Your task to perform on an android device: Open privacy settings Image 0: 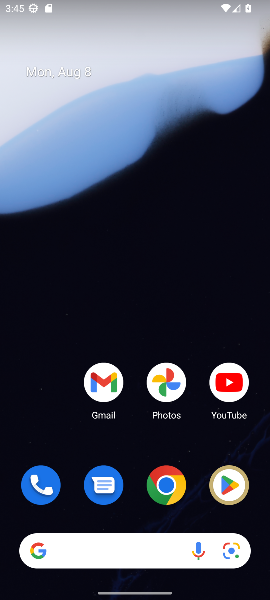
Step 0: drag from (189, 594) to (109, 160)
Your task to perform on an android device: Open privacy settings Image 1: 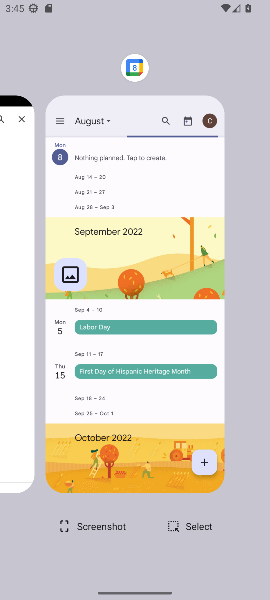
Step 1: click (197, 21)
Your task to perform on an android device: Open privacy settings Image 2: 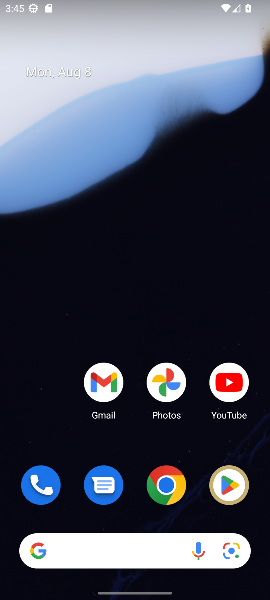
Step 2: press back button
Your task to perform on an android device: Open privacy settings Image 3: 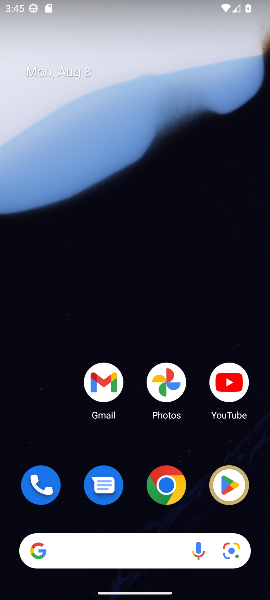
Step 3: drag from (190, 464) to (125, 159)
Your task to perform on an android device: Open privacy settings Image 4: 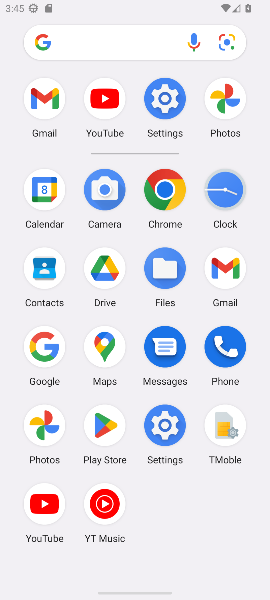
Step 4: drag from (121, 433) to (110, 54)
Your task to perform on an android device: Open privacy settings Image 5: 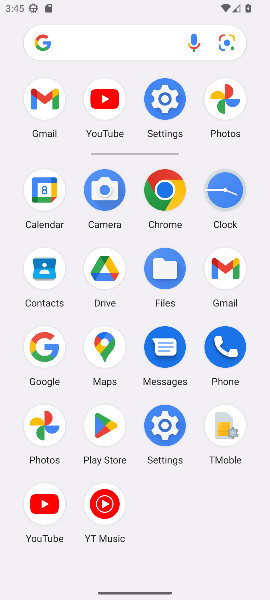
Step 5: click (152, 429)
Your task to perform on an android device: Open privacy settings Image 6: 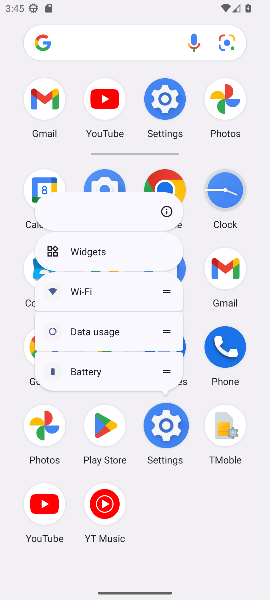
Step 6: click (155, 429)
Your task to perform on an android device: Open privacy settings Image 7: 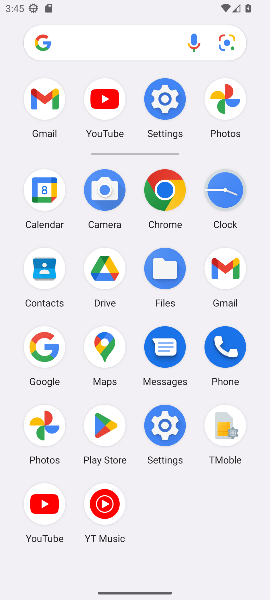
Step 7: click (167, 425)
Your task to perform on an android device: Open privacy settings Image 8: 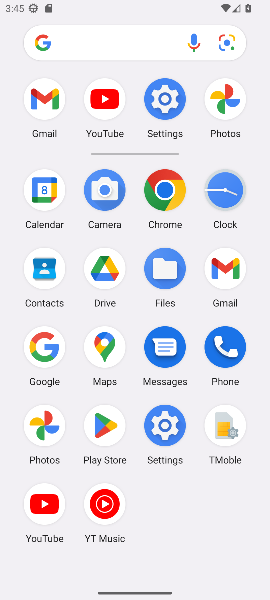
Step 8: click (167, 425)
Your task to perform on an android device: Open privacy settings Image 9: 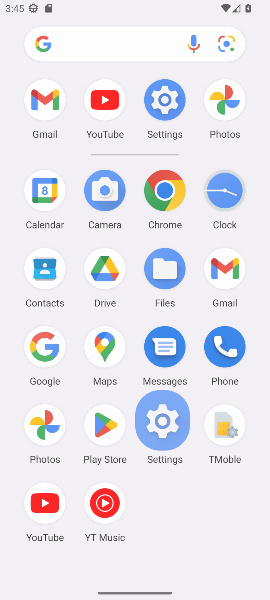
Step 9: click (167, 425)
Your task to perform on an android device: Open privacy settings Image 10: 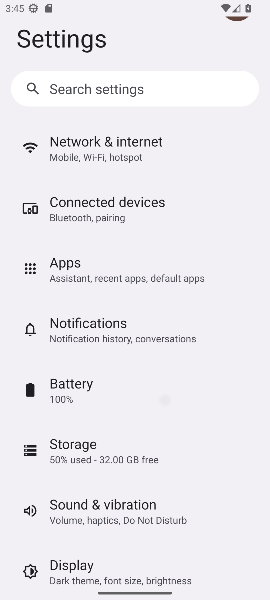
Step 10: click (167, 425)
Your task to perform on an android device: Open privacy settings Image 11: 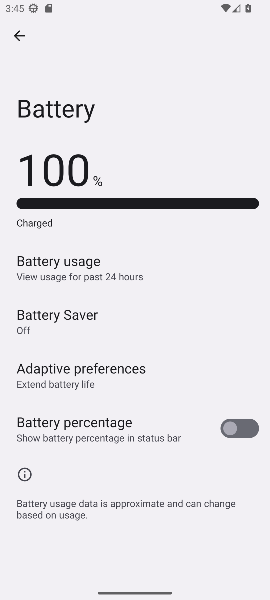
Step 11: click (7, 31)
Your task to perform on an android device: Open privacy settings Image 12: 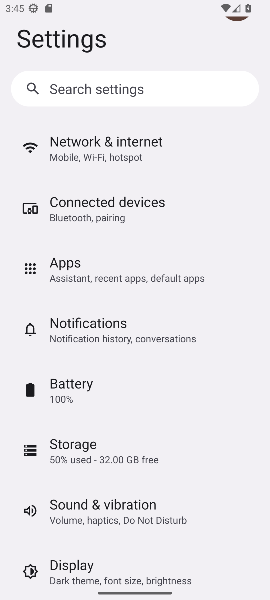
Step 12: drag from (80, 459) to (64, 328)
Your task to perform on an android device: Open privacy settings Image 13: 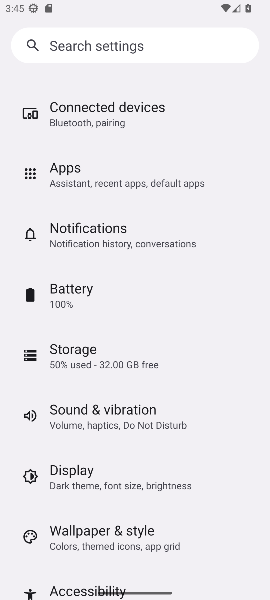
Step 13: drag from (143, 442) to (113, 297)
Your task to perform on an android device: Open privacy settings Image 14: 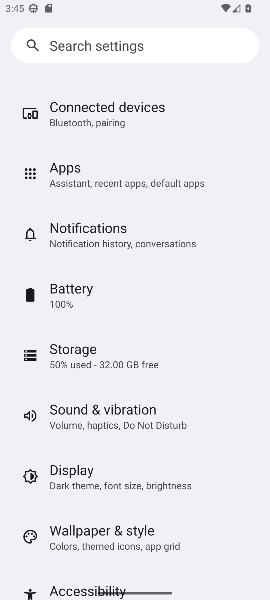
Step 14: drag from (114, 391) to (92, 215)
Your task to perform on an android device: Open privacy settings Image 15: 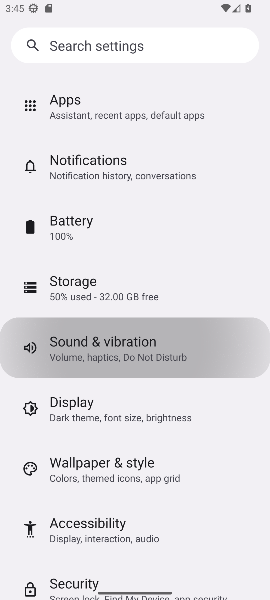
Step 15: drag from (107, 356) to (134, 150)
Your task to perform on an android device: Open privacy settings Image 16: 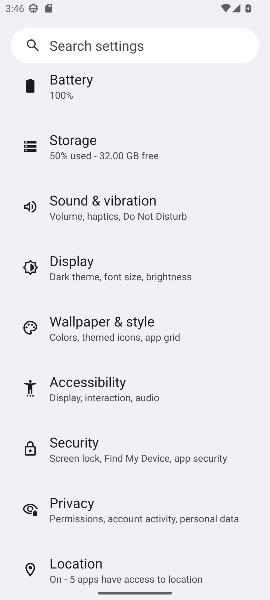
Step 16: drag from (153, 402) to (175, 131)
Your task to perform on an android device: Open privacy settings Image 17: 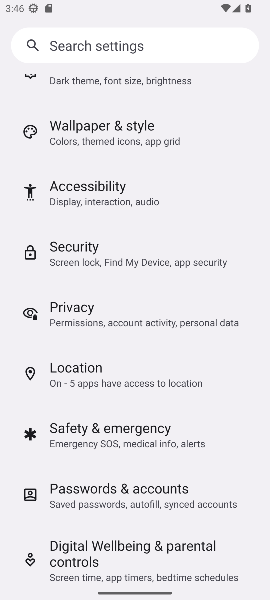
Step 17: drag from (136, 352) to (98, 30)
Your task to perform on an android device: Open privacy settings Image 18: 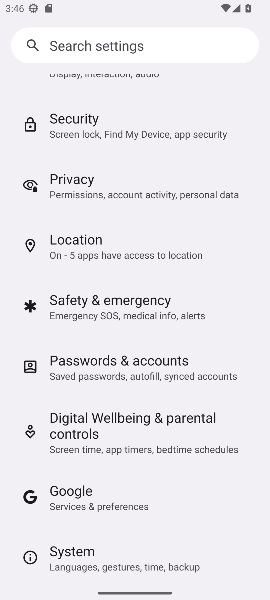
Step 18: click (80, 185)
Your task to perform on an android device: Open privacy settings Image 19: 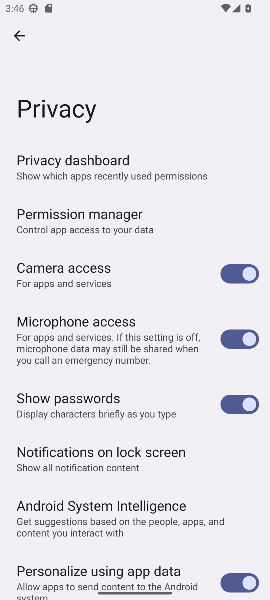
Step 19: task complete